Your task to perform on an android device: change alarm snooze length Image 0: 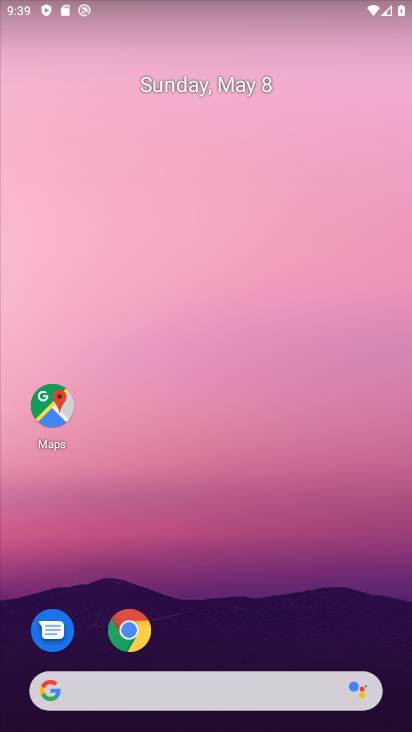
Step 0: drag from (211, 728) to (211, 171)
Your task to perform on an android device: change alarm snooze length Image 1: 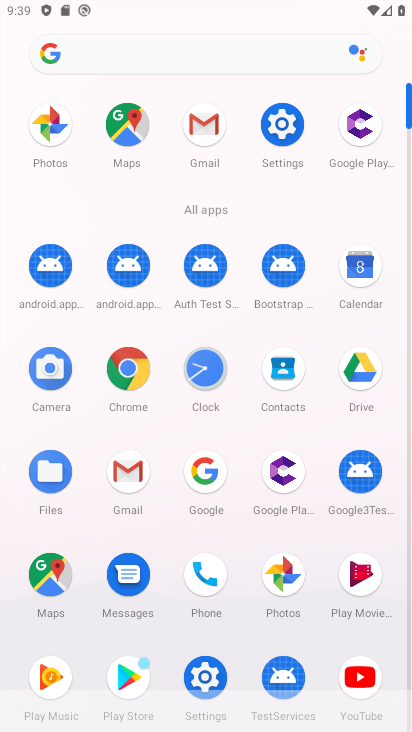
Step 1: click (212, 371)
Your task to perform on an android device: change alarm snooze length Image 2: 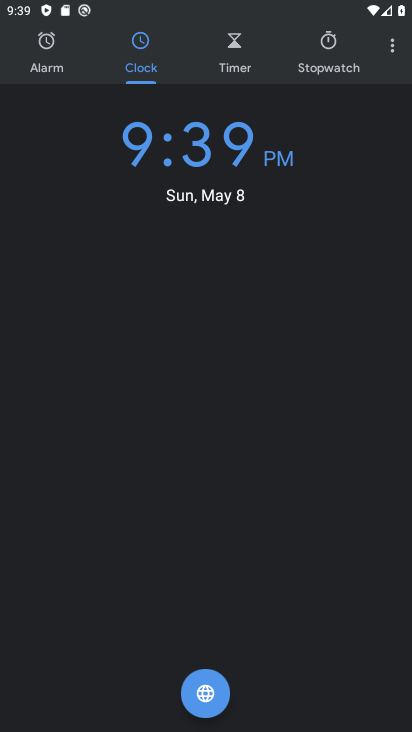
Step 2: click (392, 47)
Your task to perform on an android device: change alarm snooze length Image 3: 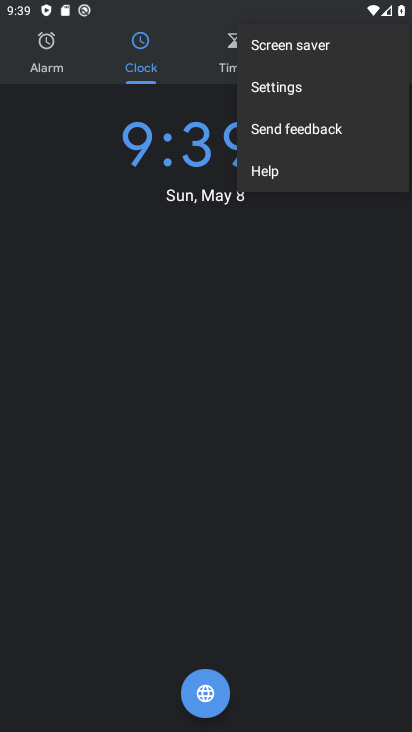
Step 3: click (271, 87)
Your task to perform on an android device: change alarm snooze length Image 4: 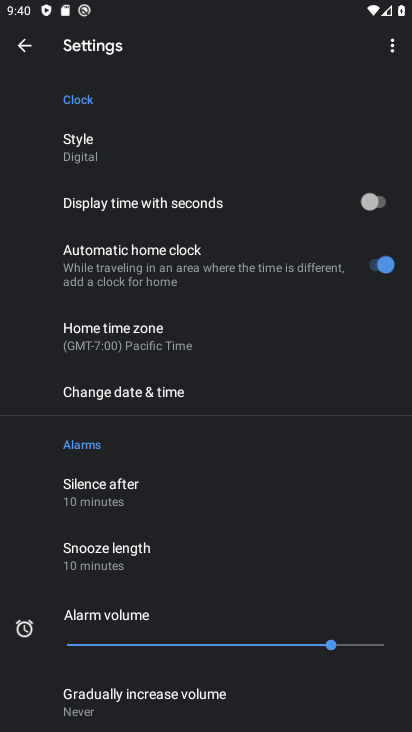
Step 4: drag from (153, 596) to (178, 361)
Your task to perform on an android device: change alarm snooze length Image 5: 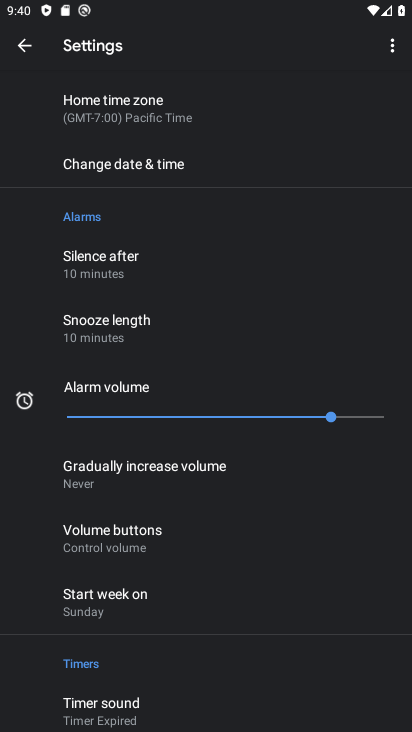
Step 5: drag from (147, 695) to (149, 598)
Your task to perform on an android device: change alarm snooze length Image 6: 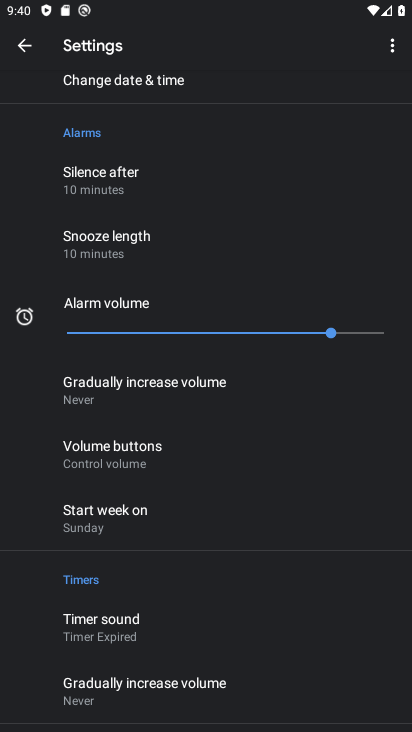
Step 6: click (102, 240)
Your task to perform on an android device: change alarm snooze length Image 7: 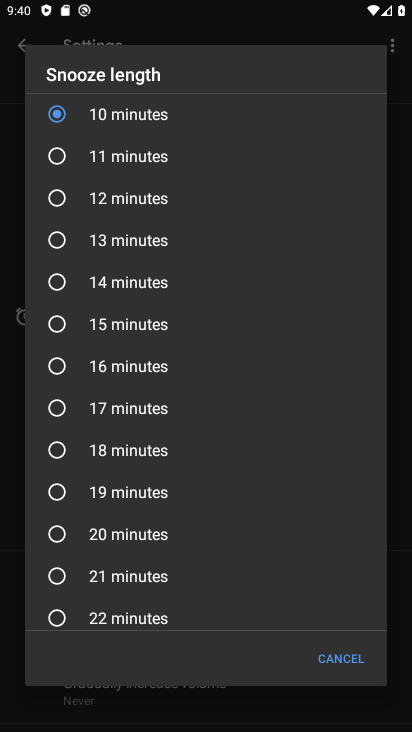
Step 7: click (51, 451)
Your task to perform on an android device: change alarm snooze length Image 8: 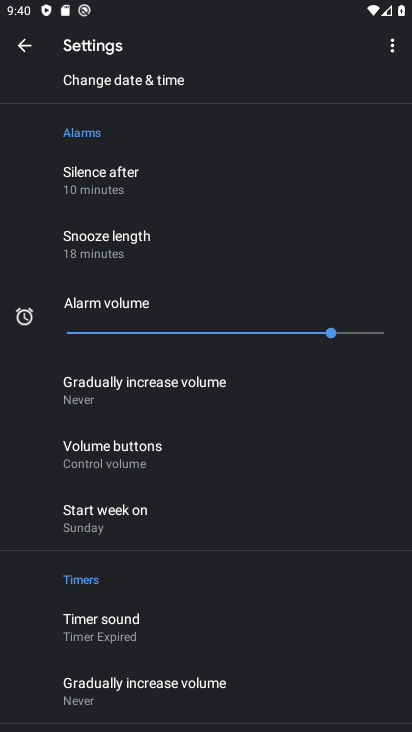
Step 8: task complete